Your task to perform on an android device: What's on my calendar today? Image 0: 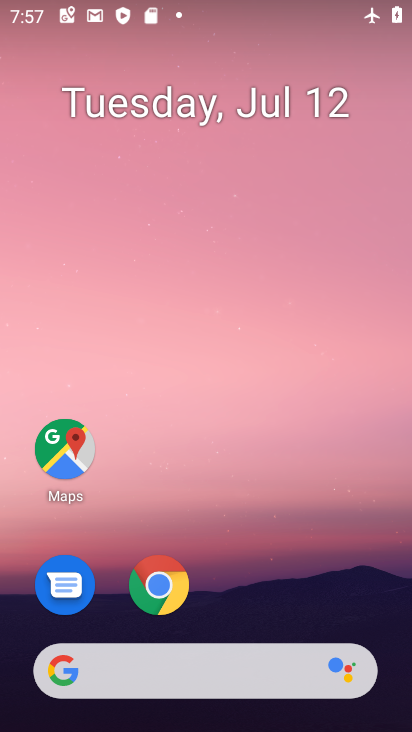
Step 0: drag from (291, 417) to (250, 10)
Your task to perform on an android device: What's on my calendar today? Image 1: 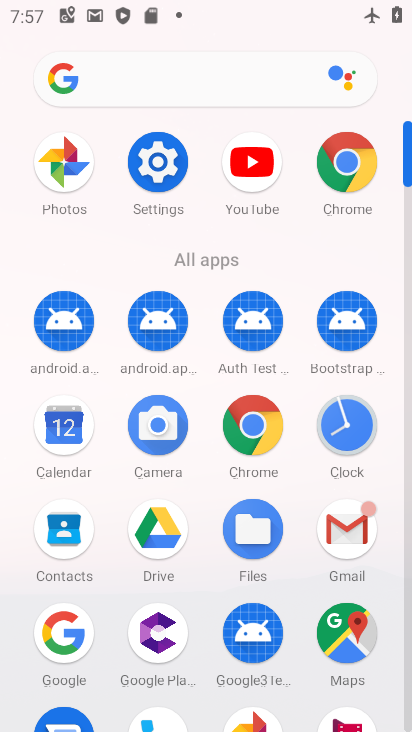
Step 1: click (78, 426)
Your task to perform on an android device: What's on my calendar today? Image 2: 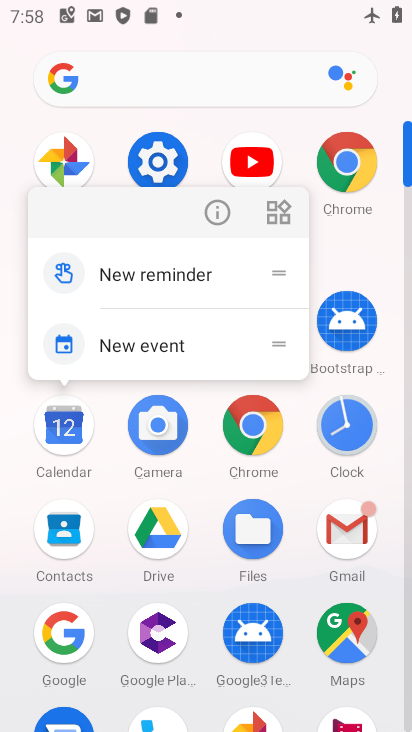
Step 2: click (70, 435)
Your task to perform on an android device: What's on my calendar today? Image 3: 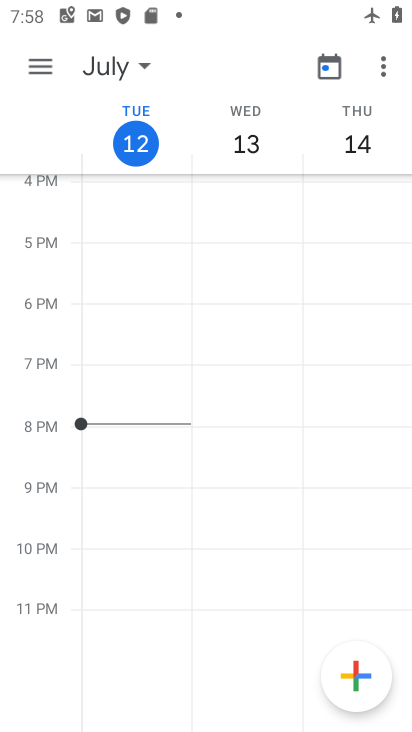
Step 3: task complete